Your task to perform on an android device: open a bookmark in the chrome app Image 0: 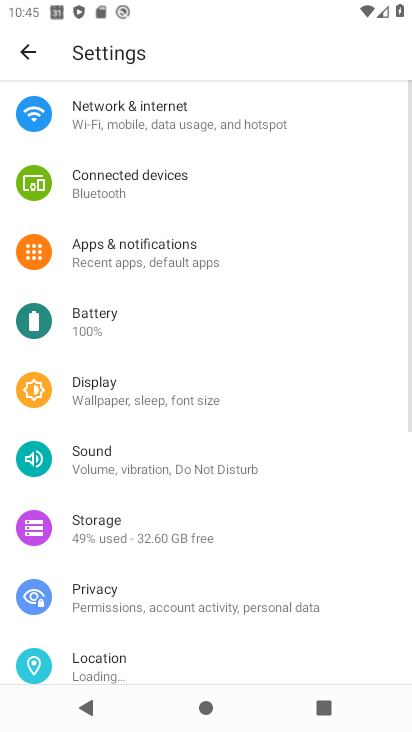
Step 0: press home button
Your task to perform on an android device: open a bookmark in the chrome app Image 1: 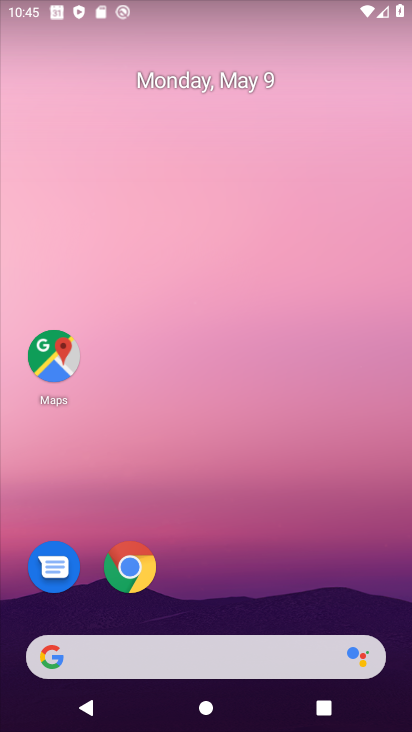
Step 1: drag from (320, 592) to (287, 77)
Your task to perform on an android device: open a bookmark in the chrome app Image 2: 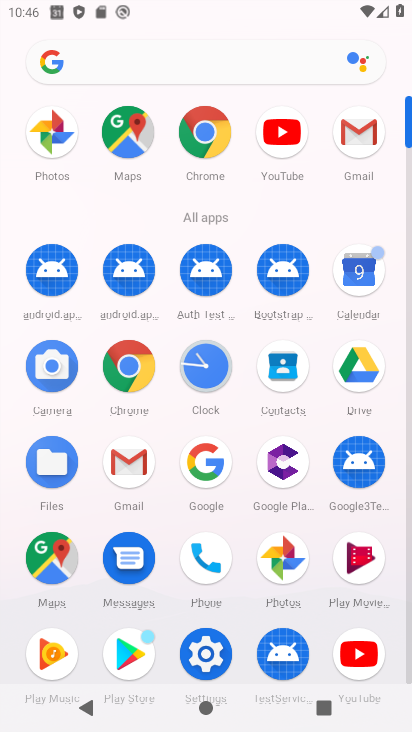
Step 2: click (116, 380)
Your task to perform on an android device: open a bookmark in the chrome app Image 3: 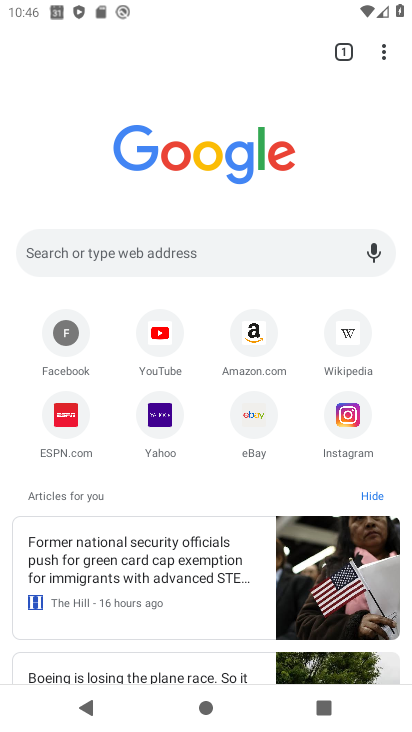
Step 3: click (379, 50)
Your task to perform on an android device: open a bookmark in the chrome app Image 4: 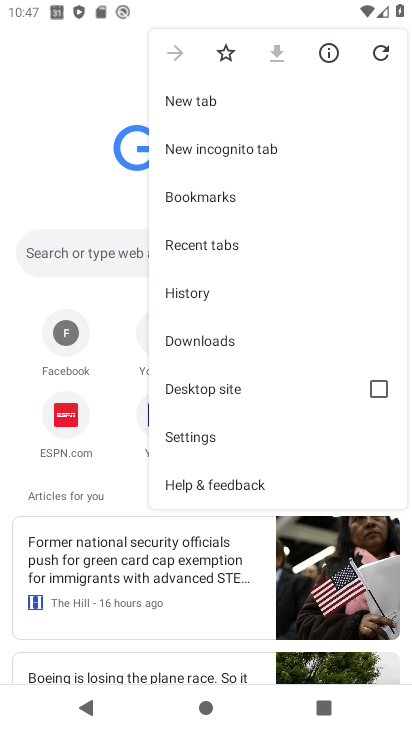
Step 4: click (267, 204)
Your task to perform on an android device: open a bookmark in the chrome app Image 5: 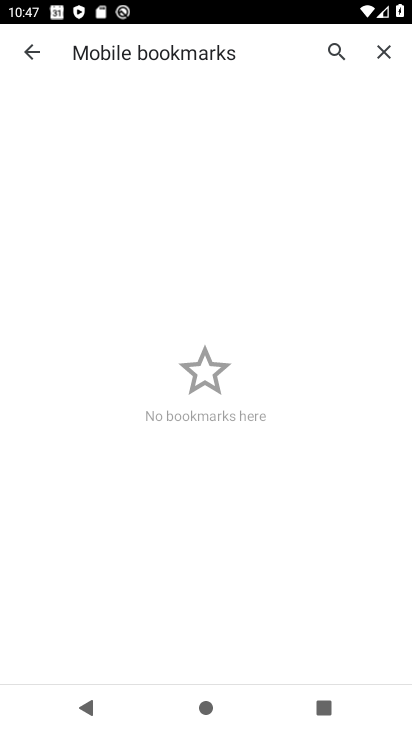
Step 5: task complete